Your task to perform on an android device: Do I have any events today? Image 0: 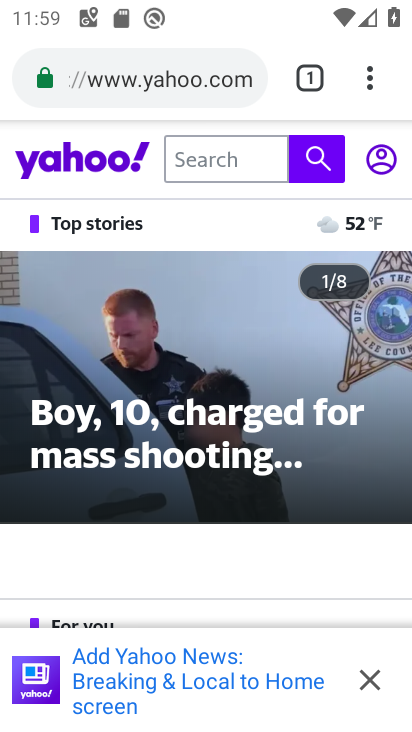
Step 0: press home button
Your task to perform on an android device: Do I have any events today? Image 1: 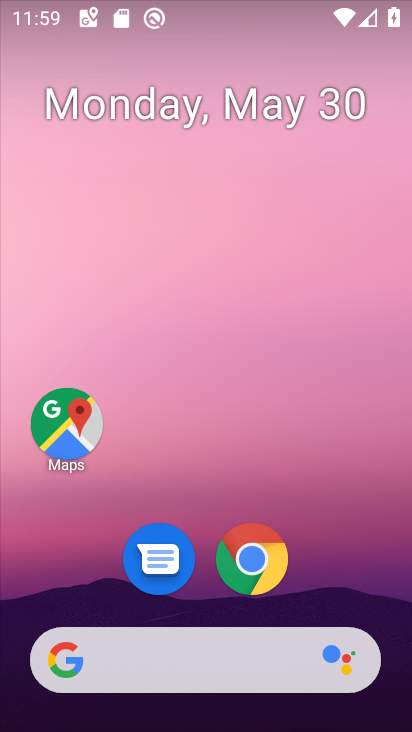
Step 1: drag from (386, 612) to (291, 242)
Your task to perform on an android device: Do I have any events today? Image 2: 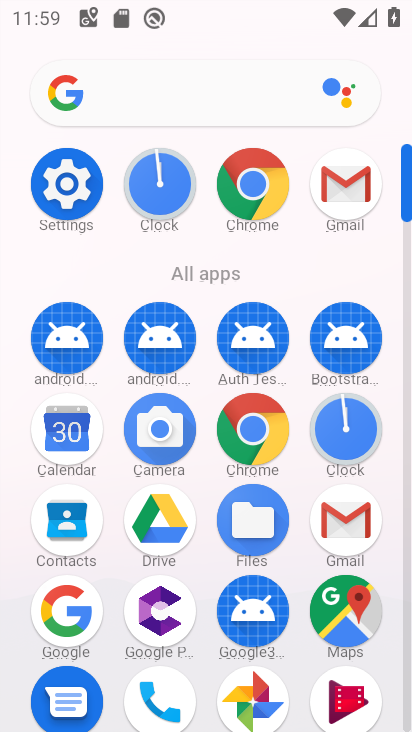
Step 2: click (74, 446)
Your task to perform on an android device: Do I have any events today? Image 3: 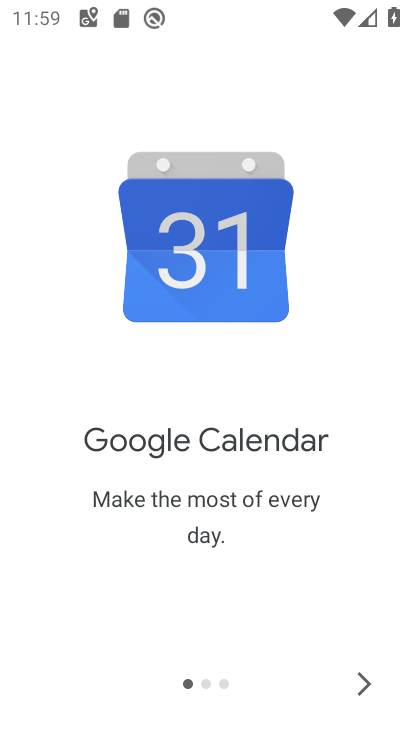
Step 3: click (375, 693)
Your task to perform on an android device: Do I have any events today? Image 4: 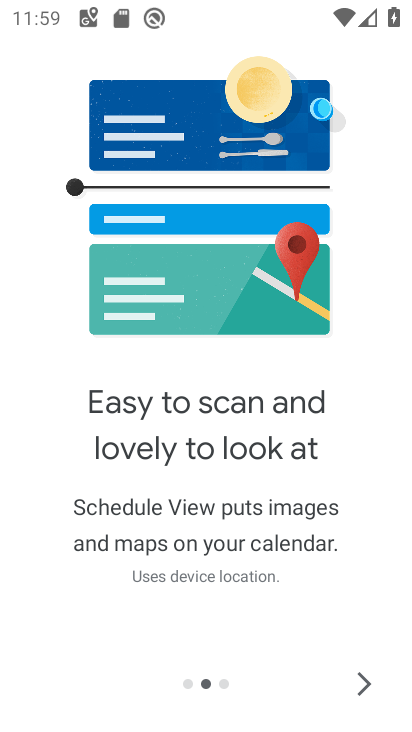
Step 4: click (375, 693)
Your task to perform on an android device: Do I have any events today? Image 5: 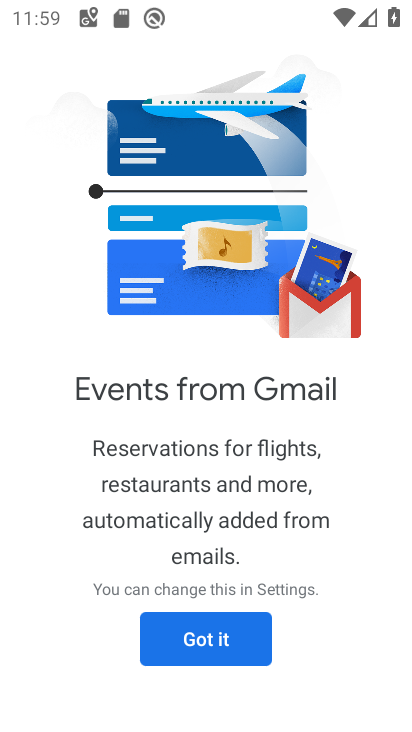
Step 5: click (182, 644)
Your task to perform on an android device: Do I have any events today? Image 6: 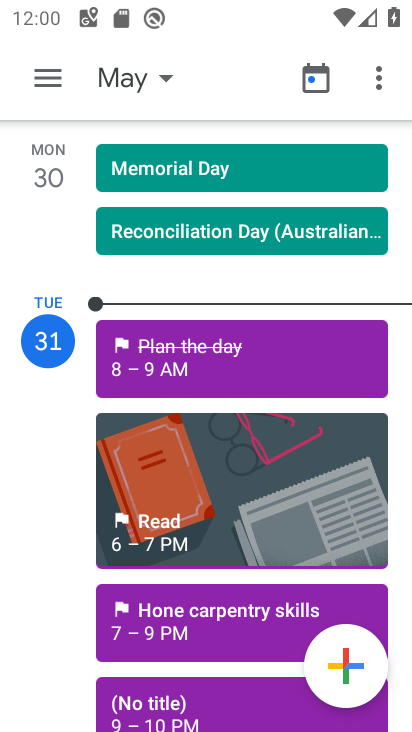
Step 6: click (51, 81)
Your task to perform on an android device: Do I have any events today? Image 7: 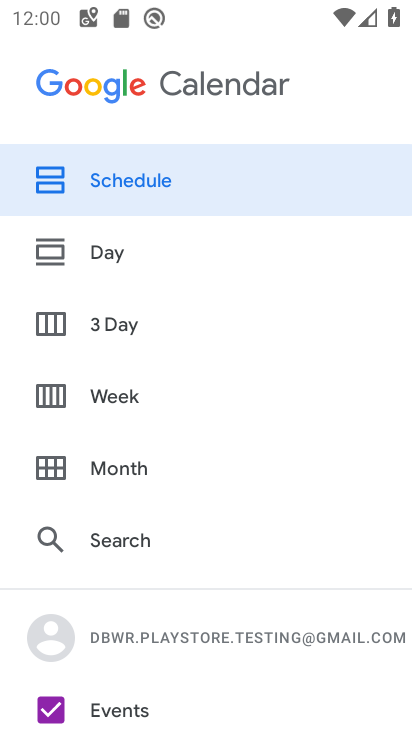
Step 7: drag from (172, 642) to (155, 158)
Your task to perform on an android device: Do I have any events today? Image 8: 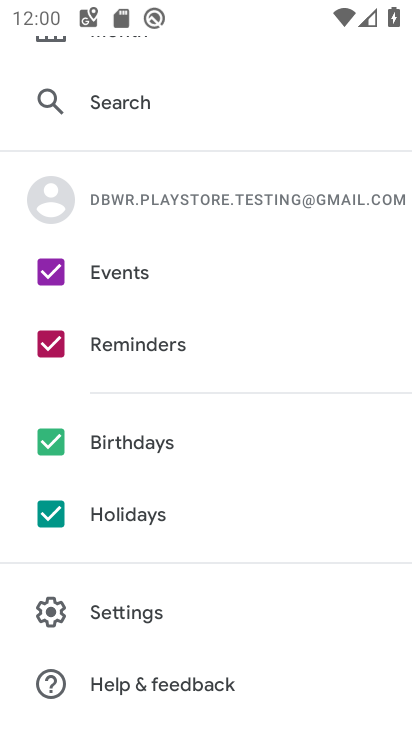
Step 8: click (48, 513)
Your task to perform on an android device: Do I have any events today? Image 9: 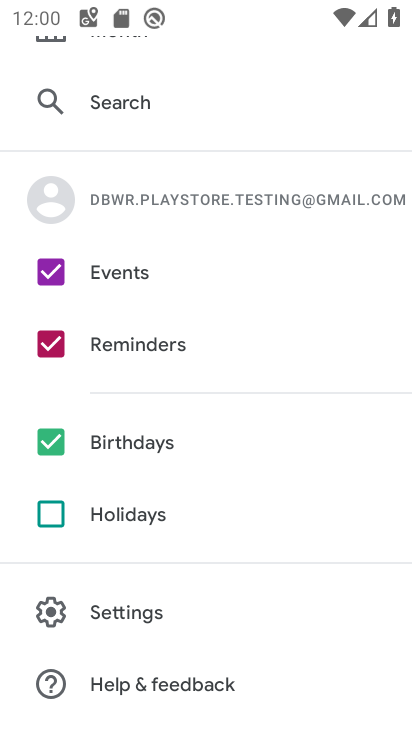
Step 9: click (48, 443)
Your task to perform on an android device: Do I have any events today? Image 10: 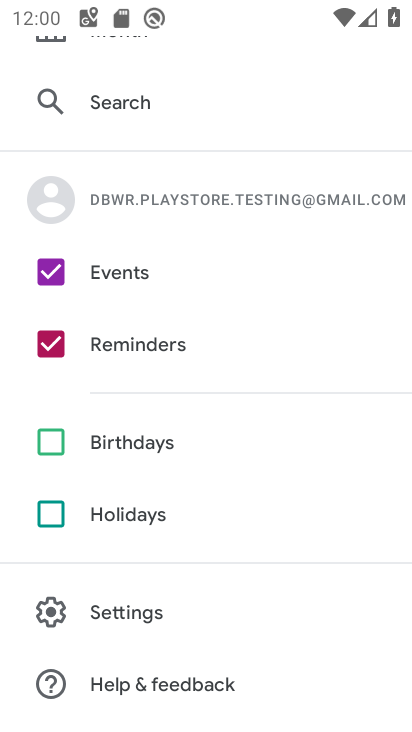
Step 10: click (49, 342)
Your task to perform on an android device: Do I have any events today? Image 11: 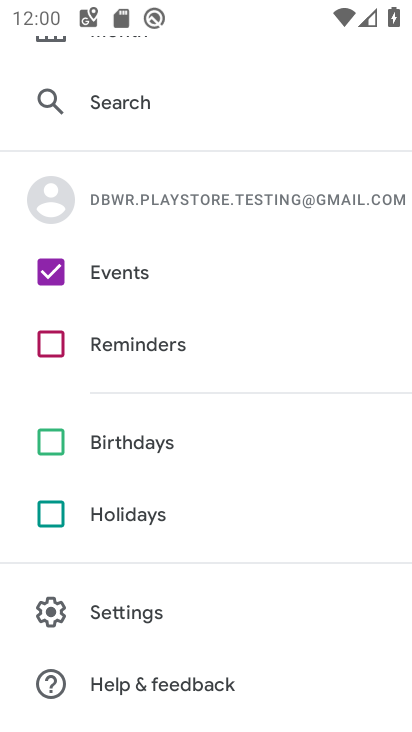
Step 11: drag from (152, 129) to (181, 433)
Your task to perform on an android device: Do I have any events today? Image 12: 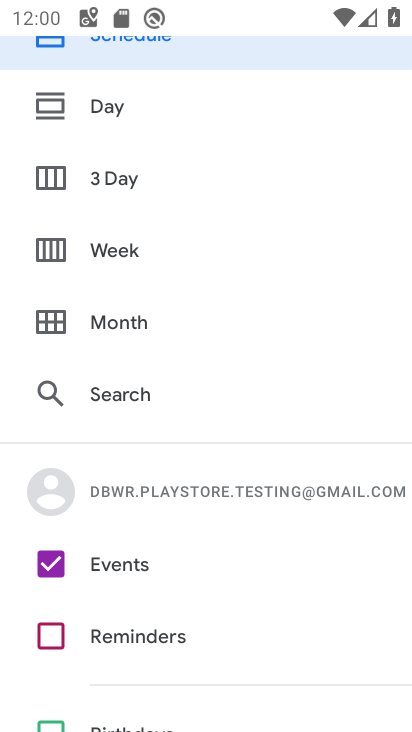
Step 12: click (110, 45)
Your task to perform on an android device: Do I have any events today? Image 13: 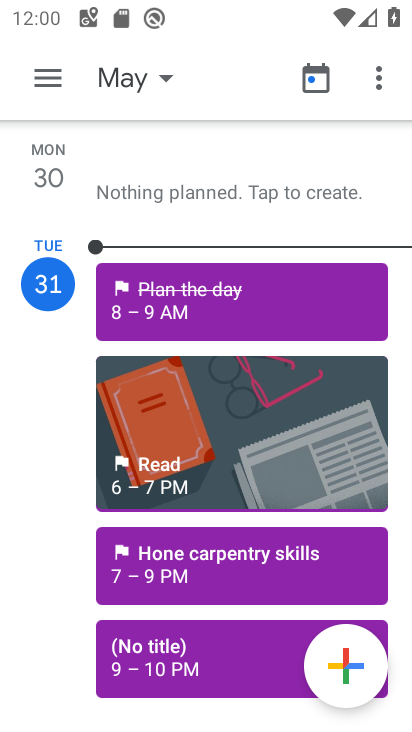
Step 13: task complete